Your task to perform on an android device: Go to privacy settings Image 0: 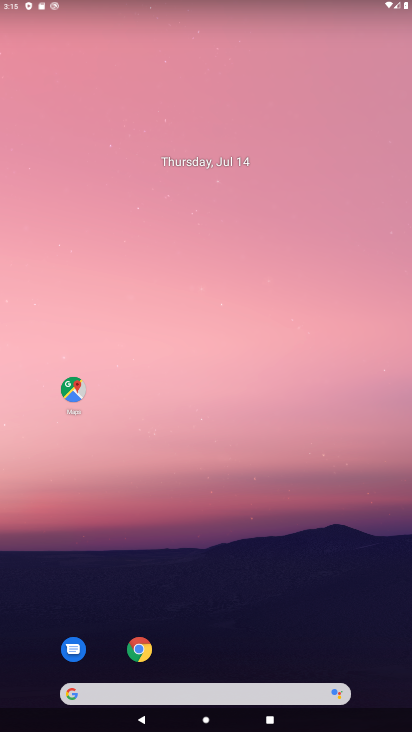
Step 0: drag from (185, 675) to (144, 63)
Your task to perform on an android device: Go to privacy settings Image 1: 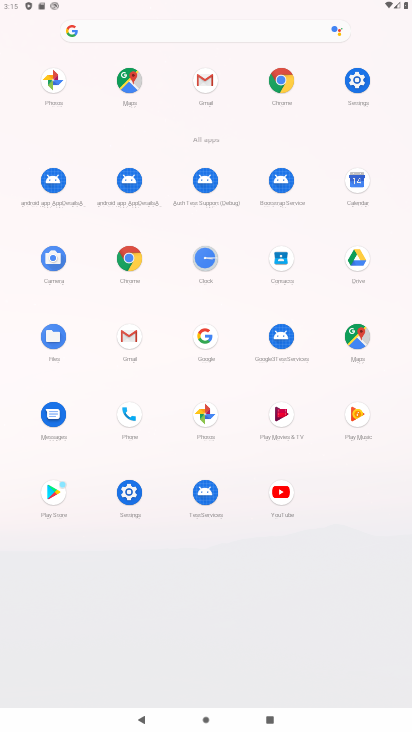
Step 1: click (134, 496)
Your task to perform on an android device: Go to privacy settings Image 2: 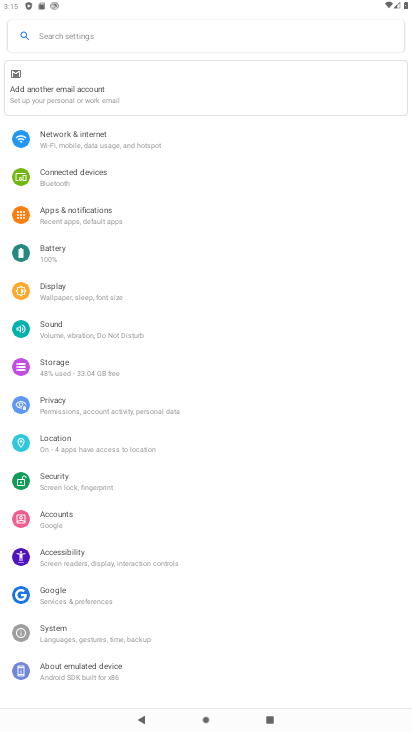
Step 2: click (43, 407)
Your task to perform on an android device: Go to privacy settings Image 3: 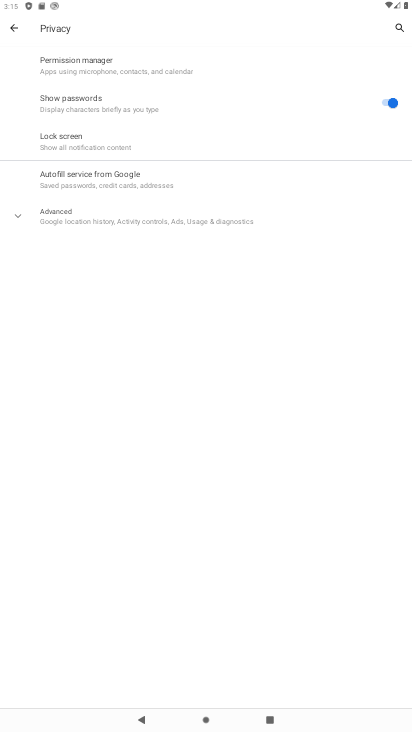
Step 3: task complete